Your task to perform on an android device: Show me recent news Image 0: 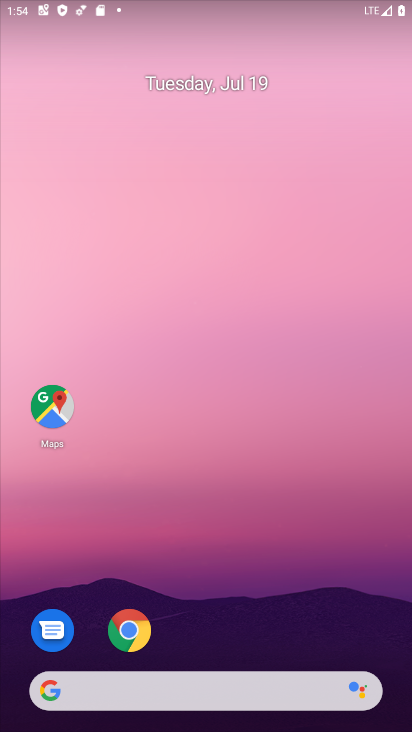
Step 0: drag from (4, 322) to (401, 326)
Your task to perform on an android device: Show me recent news Image 1: 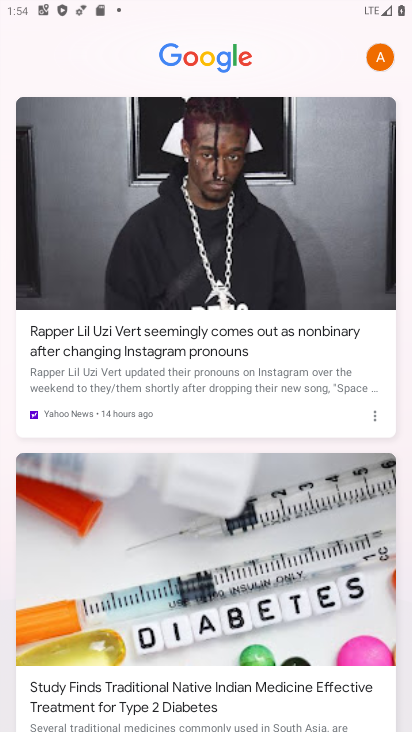
Step 1: task complete